Your task to perform on an android device: turn on location history Image 0: 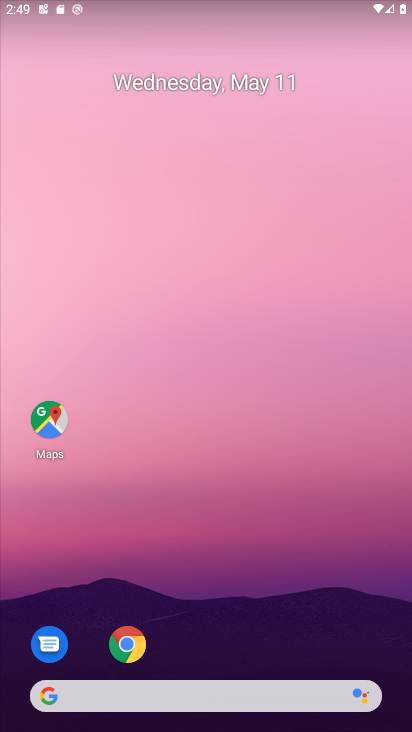
Step 0: drag from (197, 676) to (242, 6)
Your task to perform on an android device: turn on location history Image 1: 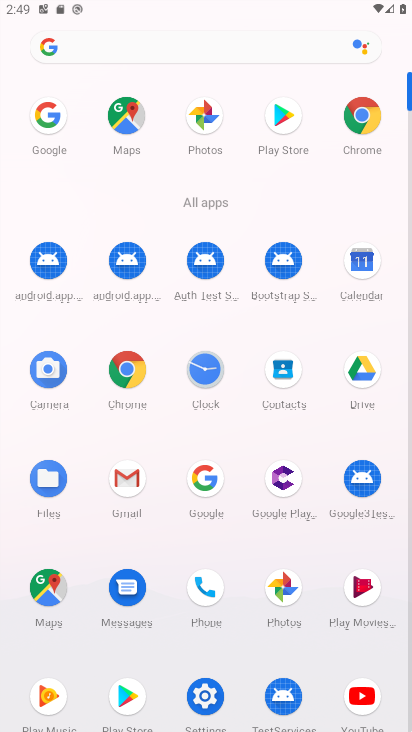
Step 1: click (215, 691)
Your task to perform on an android device: turn on location history Image 2: 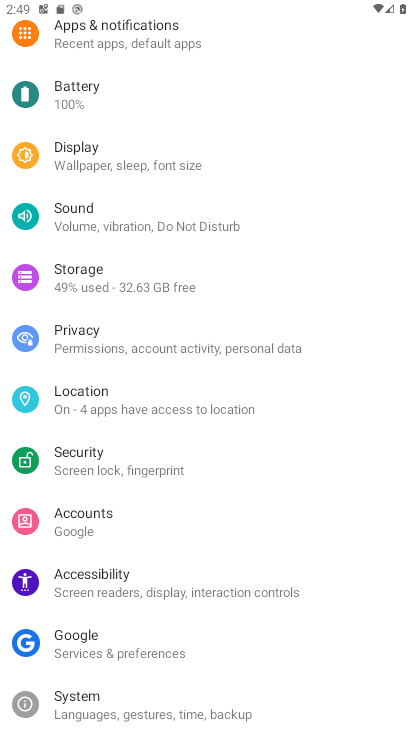
Step 2: drag from (215, 691) to (200, 597)
Your task to perform on an android device: turn on location history Image 3: 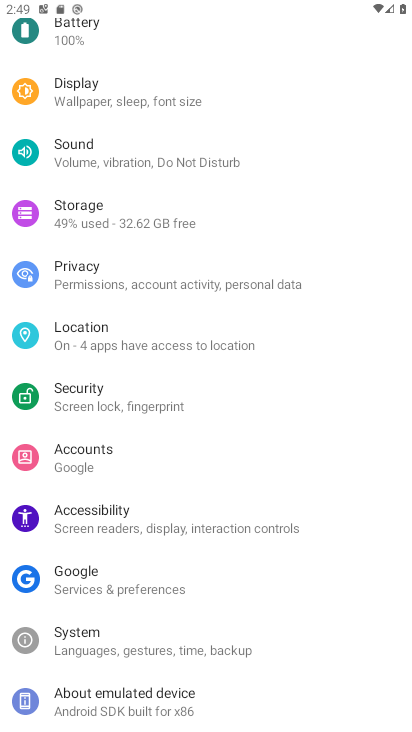
Step 3: click (108, 329)
Your task to perform on an android device: turn on location history Image 4: 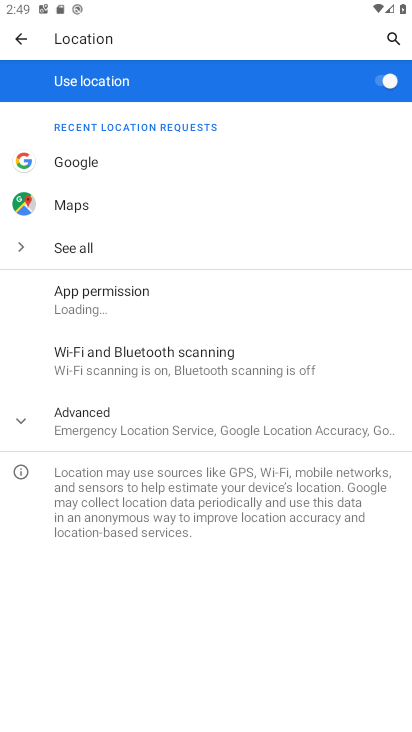
Step 4: click (161, 409)
Your task to perform on an android device: turn on location history Image 5: 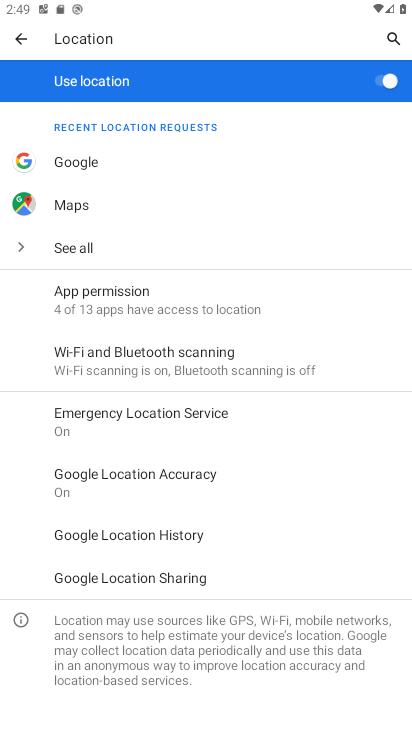
Step 5: click (143, 524)
Your task to perform on an android device: turn on location history Image 6: 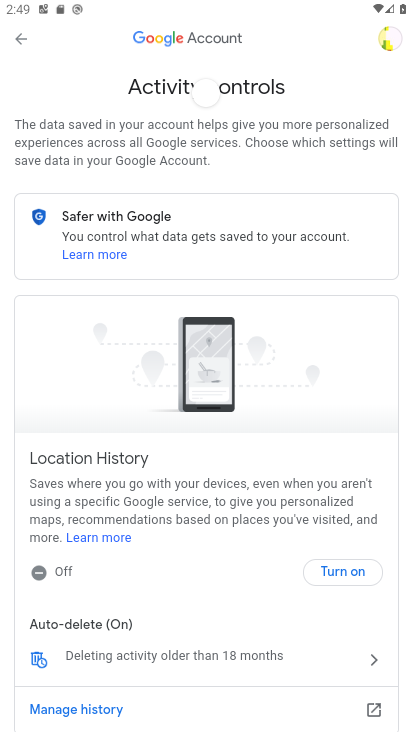
Step 6: click (329, 566)
Your task to perform on an android device: turn on location history Image 7: 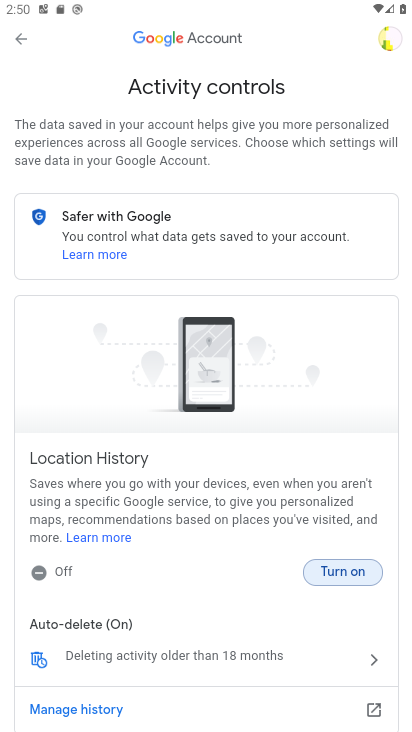
Step 7: drag from (357, 651) to (350, 549)
Your task to perform on an android device: turn on location history Image 8: 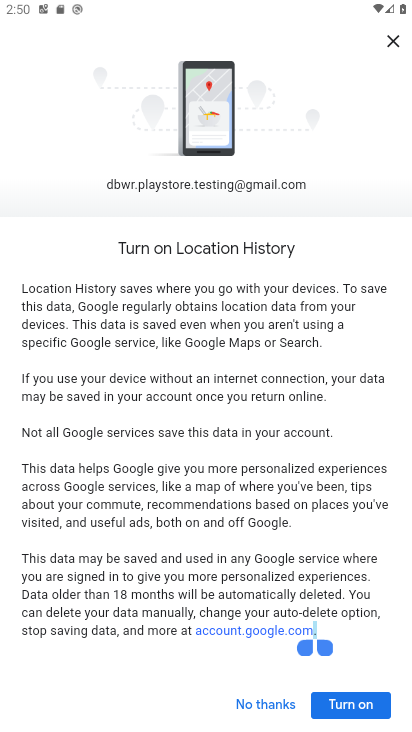
Step 8: click (350, 701)
Your task to perform on an android device: turn on location history Image 9: 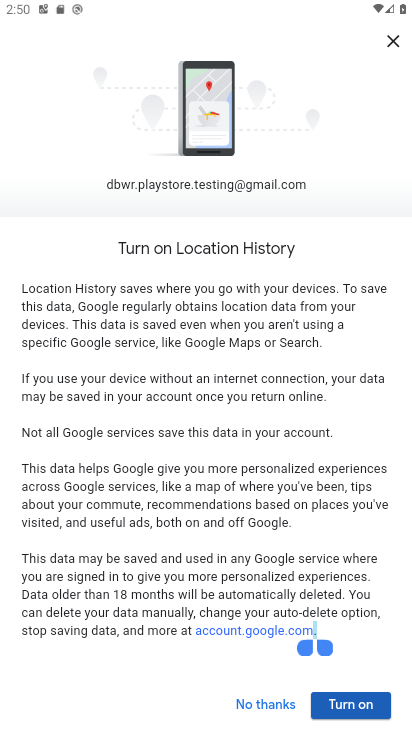
Step 9: click (339, 709)
Your task to perform on an android device: turn on location history Image 10: 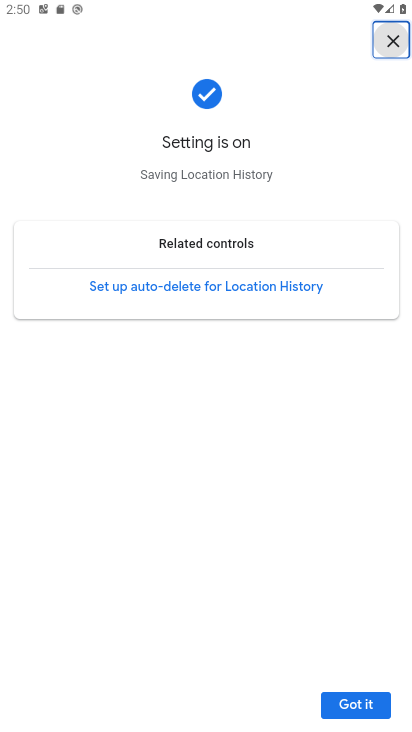
Step 10: click (351, 707)
Your task to perform on an android device: turn on location history Image 11: 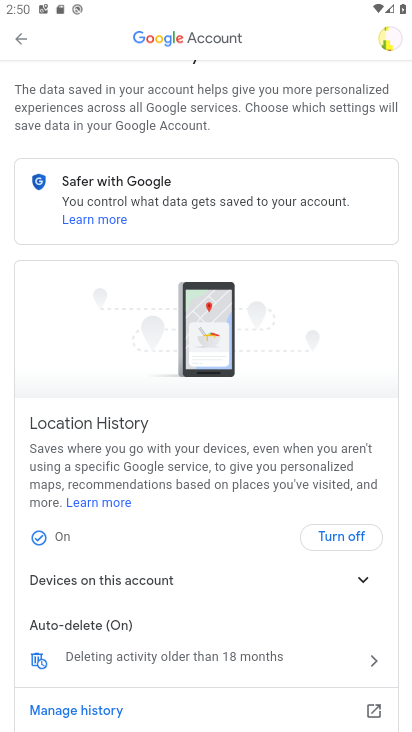
Step 11: task complete